Your task to perform on an android device: turn on sleep mode Image 0: 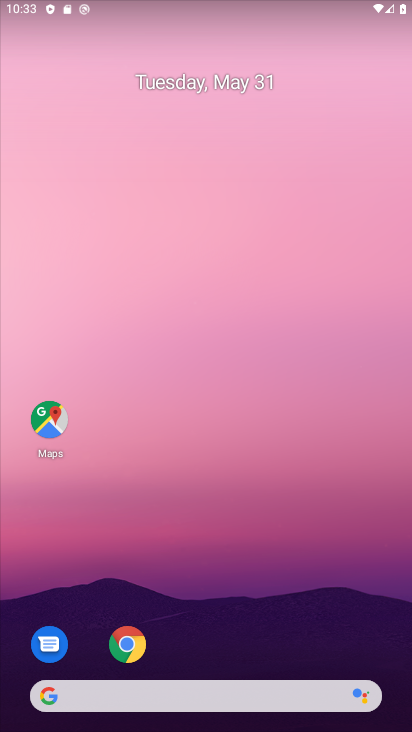
Step 0: drag from (325, 591) to (334, 8)
Your task to perform on an android device: turn on sleep mode Image 1: 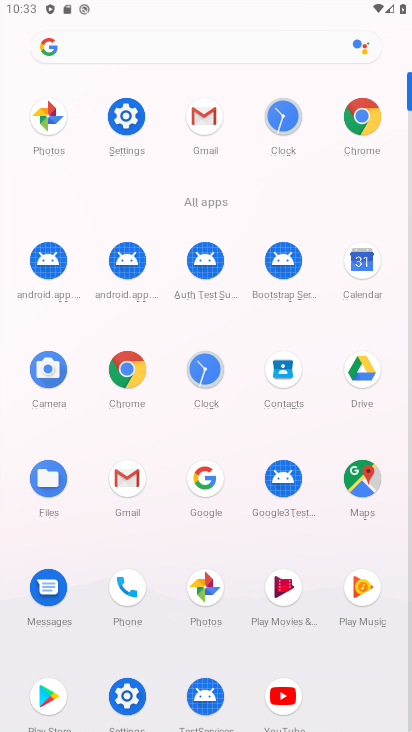
Step 1: click (122, 112)
Your task to perform on an android device: turn on sleep mode Image 2: 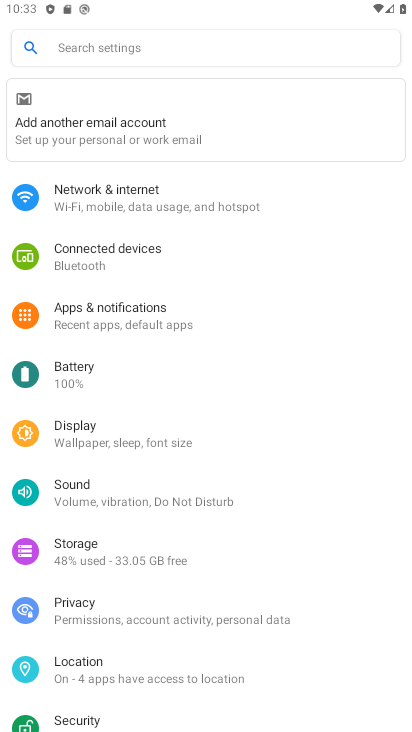
Step 2: click (83, 439)
Your task to perform on an android device: turn on sleep mode Image 3: 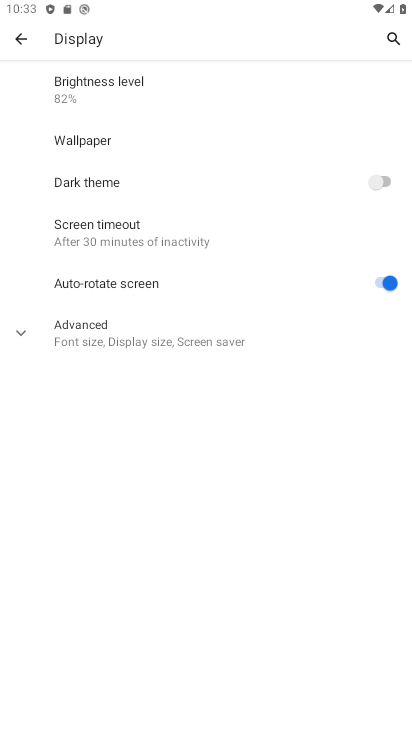
Step 3: task complete